Your task to perform on an android device: Do I have any events this weekend? Image 0: 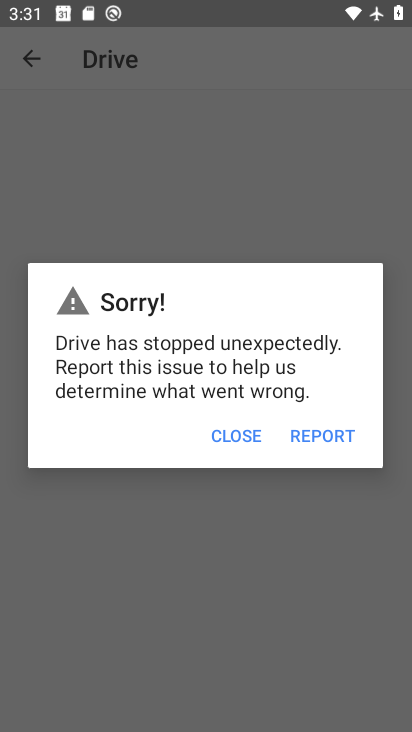
Step 0: drag from (255, 554) to (264, 473)
Your task to perform on an android device: Do I have any events this weekend? Image 1: 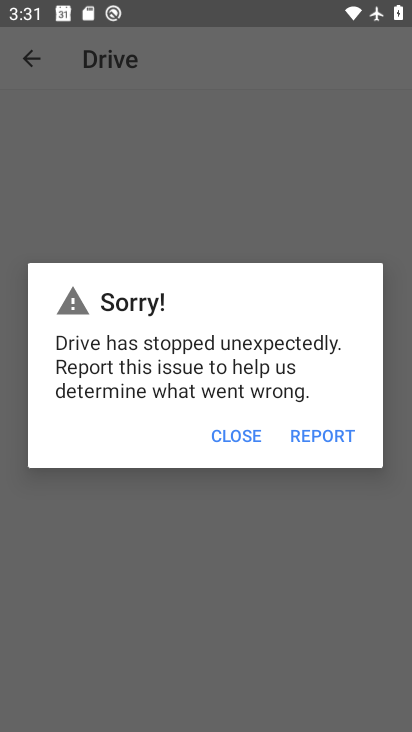
Step 1: press home button
Your task to perform on an android device: Do I have any events this weekend? Image 2: 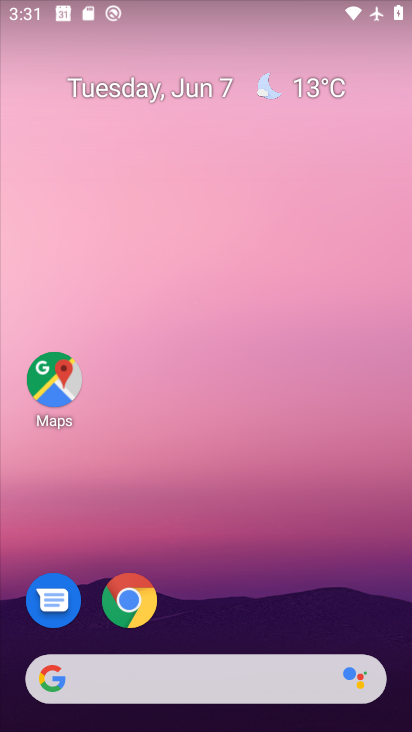
Step 2: drag from (298, 526) to (206, 107)
Your task to perform on an android device: Do I have any events this weekend? Image 3: 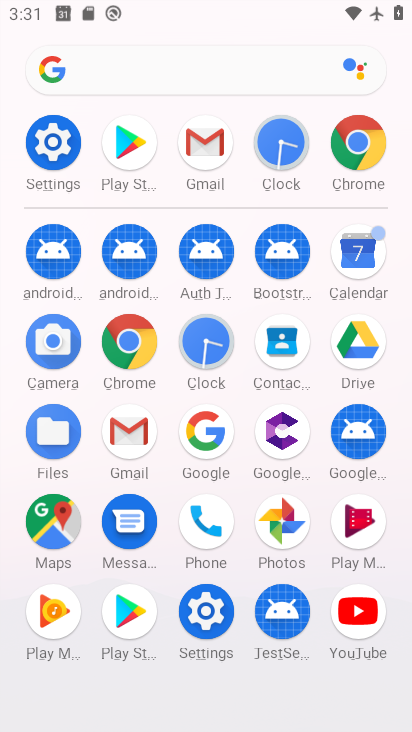
Step 3: click (290, 356)
Your task to perform on an android device: Do I have any events this weekend? Image 4: 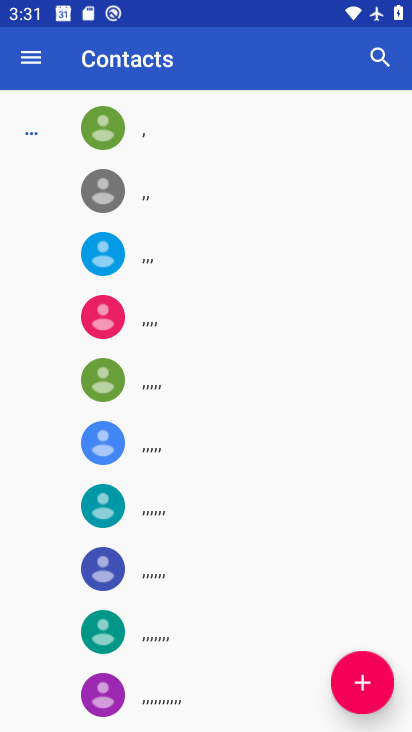
Step 4: press home button
Your task to perform on an android device: Do I have any events this weekend? Image 5: 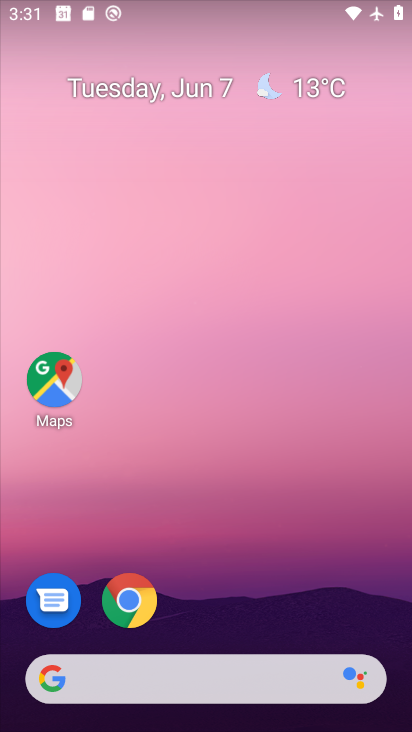
Step 5: drag from (293, 566) to (332, 172)
Your task to perform on an android device: Do I have any events this weekend? Image 6: 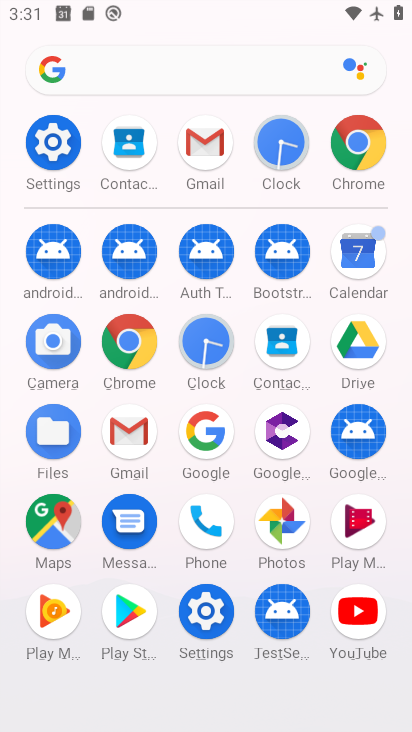
Step 6: click (348, 266)
Your task to perform on an android device: Do I have any events this weekend? Image 7: 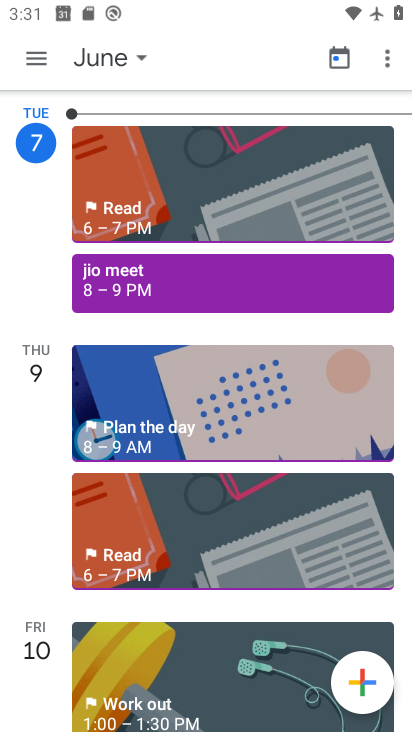
Step 7: click (93, 61)
Your task to perform on an android device: Do I have any events this weekend? Image 8: 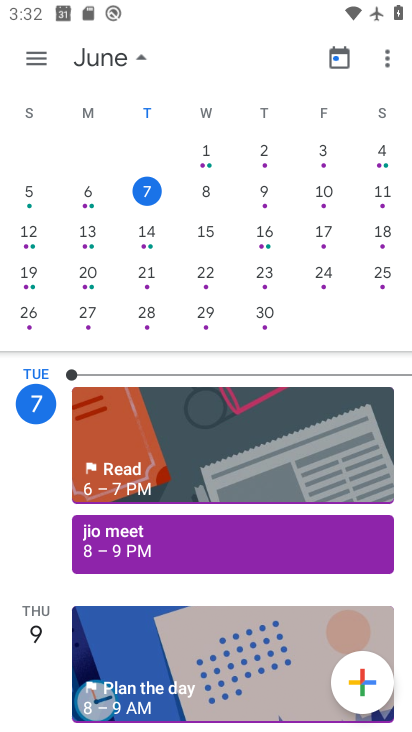
Step 8: click (43, 57)
Your task to perform on an android device: Do I have any events this weekend? Image 9: 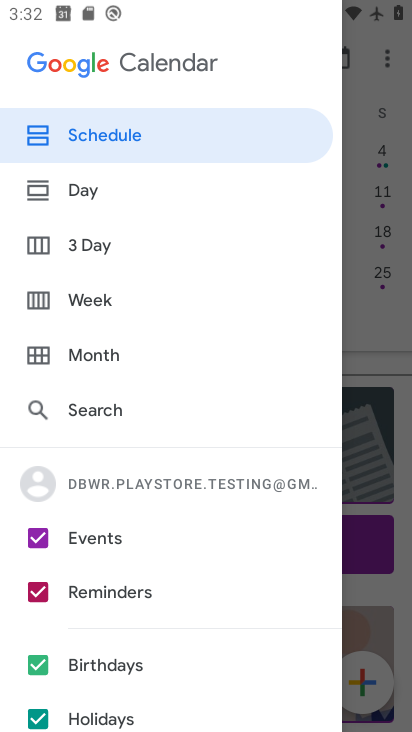
Step 9: click (102, 292)
Your task to perform on an android device: Do I have any events this weekend? Image 10: 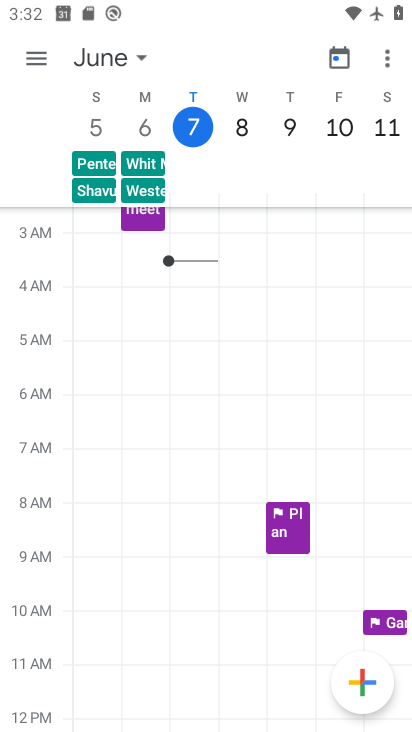
Step 10: task complete